Your task to perform on an android device: Open calendar and show me the fourth week of next month Image 0: 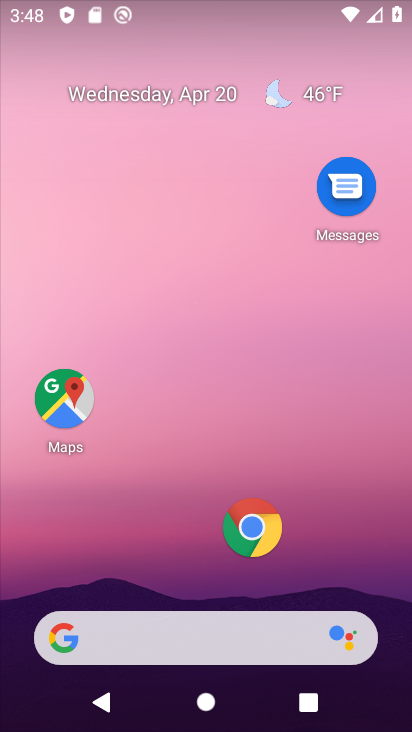
Step 0: drag from (248, 535) to (316, 120)
Your task to perform on an android device: Open calendar and show me the fourth week of next month Image 1: 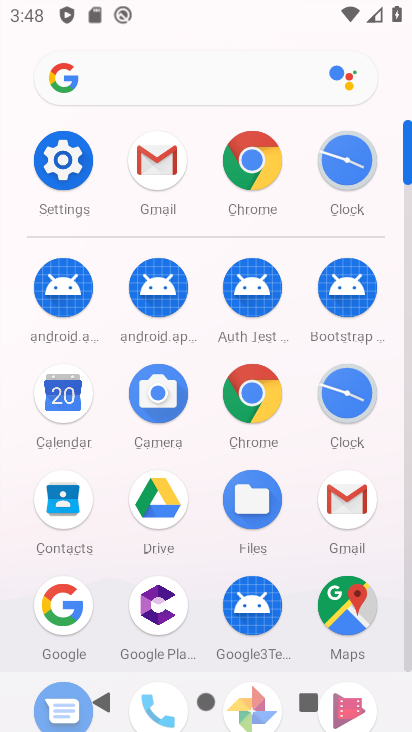
Step 1: click (64, 383)
Your task to perform on an android device: Open calendar and show me the fourth week of next month Image 2: 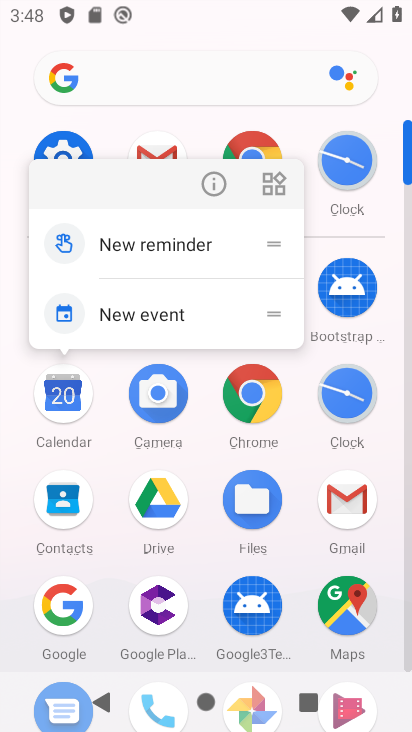
Step 2: click (65, 399)
Your task to perform on an android device: Open calendar and show me the fourth week of next month Image 3: 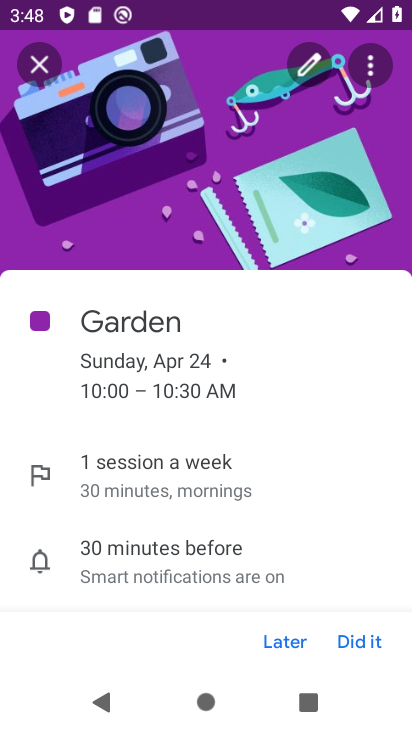
Step 3: click (33, 61)
Your task to perform on an android device: Open calendar and show me the fourth week of next month Image 4: 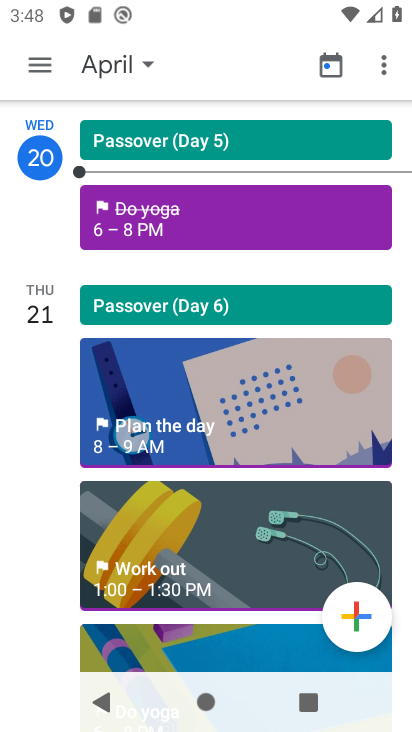
Step 4: click (100, 57)
Your task to perform on an android device: Open calendar and show me the fourth week of next month Image 5: 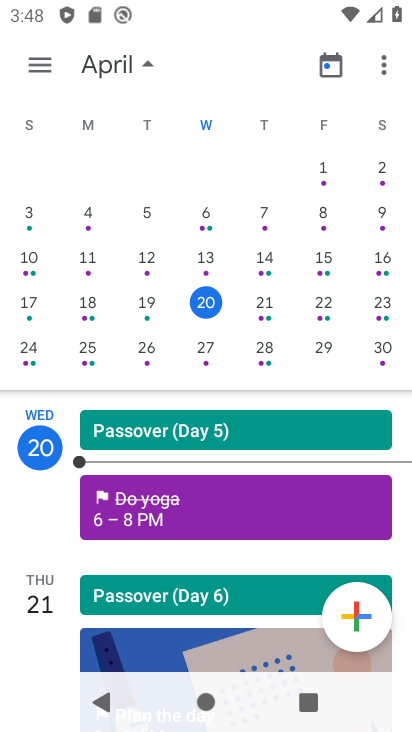
Step 5: drag from (320, 338) to (4, 257)
Your task to perform on an android device: Open calendar and show me the fourth week of next month Image 6: 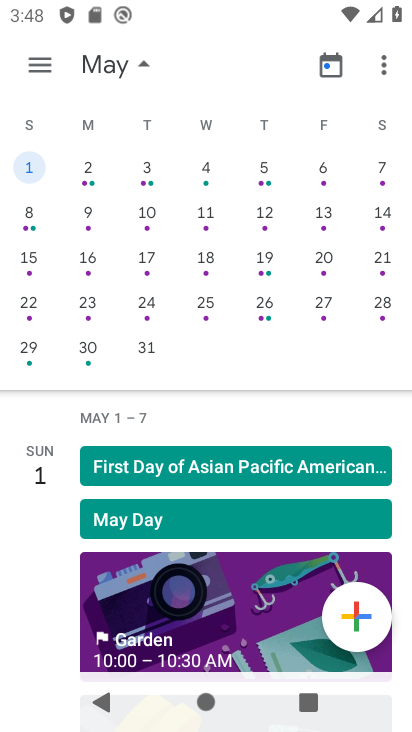
Step 6: click (27, 306)
Your task to perform on an android device: Open calendar and show me the fourth week of next month Image 7: 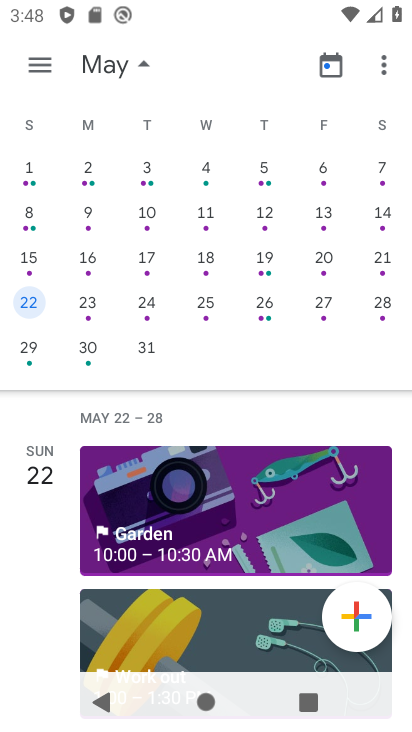
Step 7: click (48, 64)
Your task to perform on an android device: Open calendar and show me the fourth week of next month Image 8: 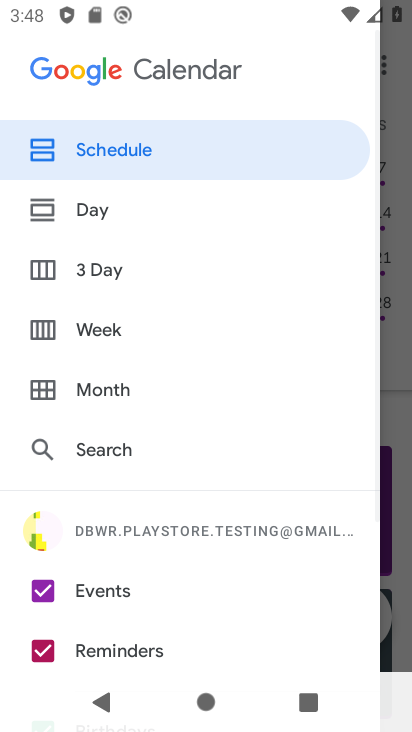
Step 8: click (83, 330)
Your task to perform on an android device: Open calendar and show me the fourth week of next month Image 9: 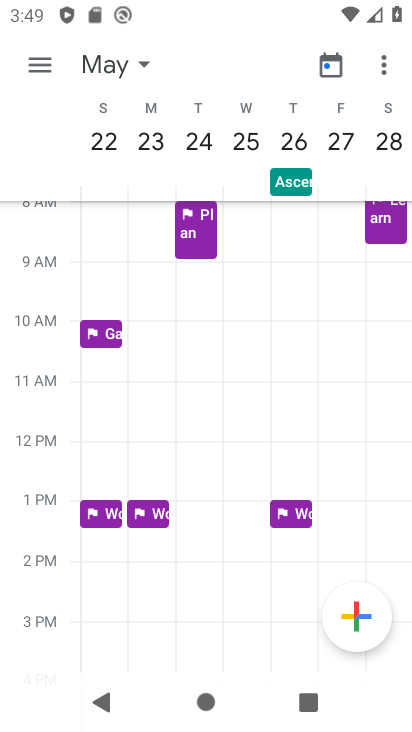
Step 9: task complete